Your task to perform on an android device: Open calendar and show me the fourth week of next month Image 0: 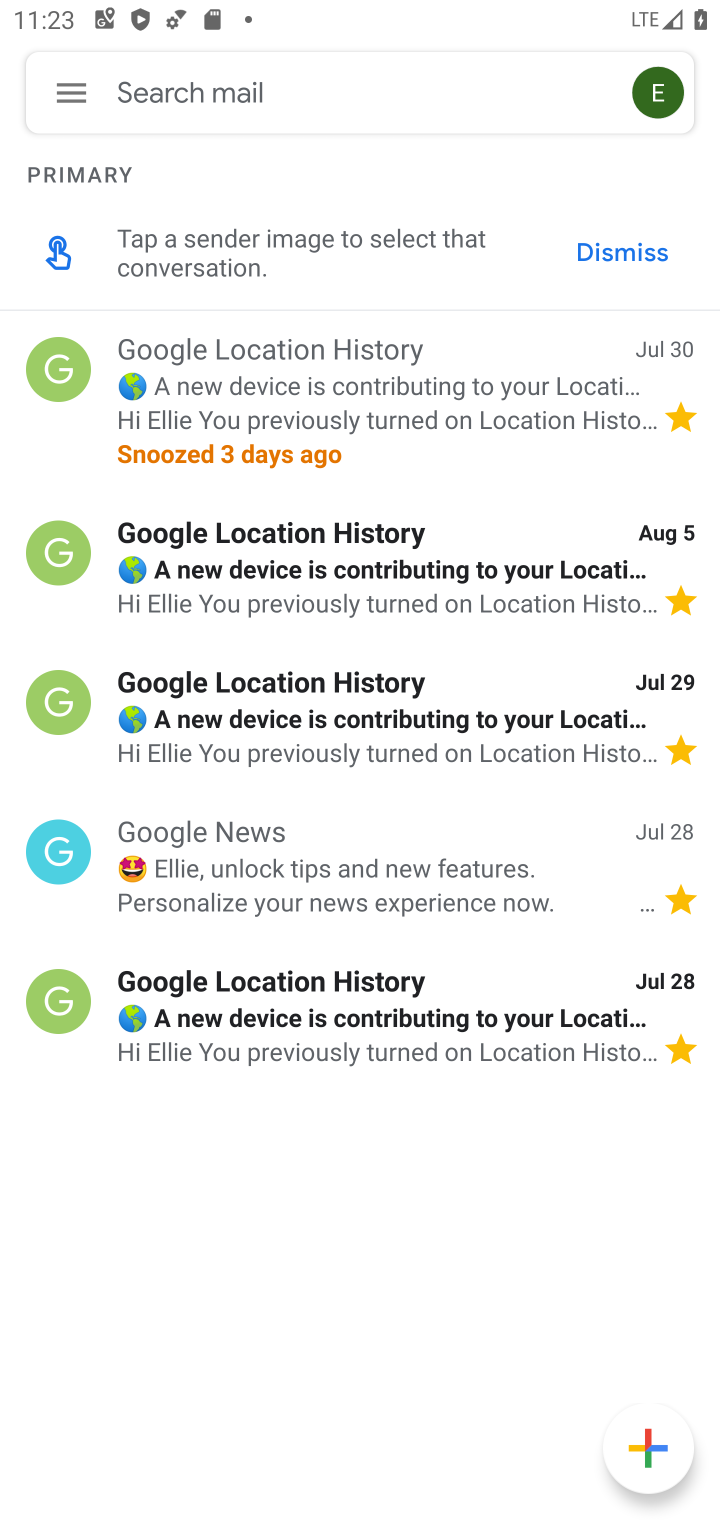
Step 0: press back button
Your task to perform on an android device: Open calendar and show me the fourth week of next month Image 1: 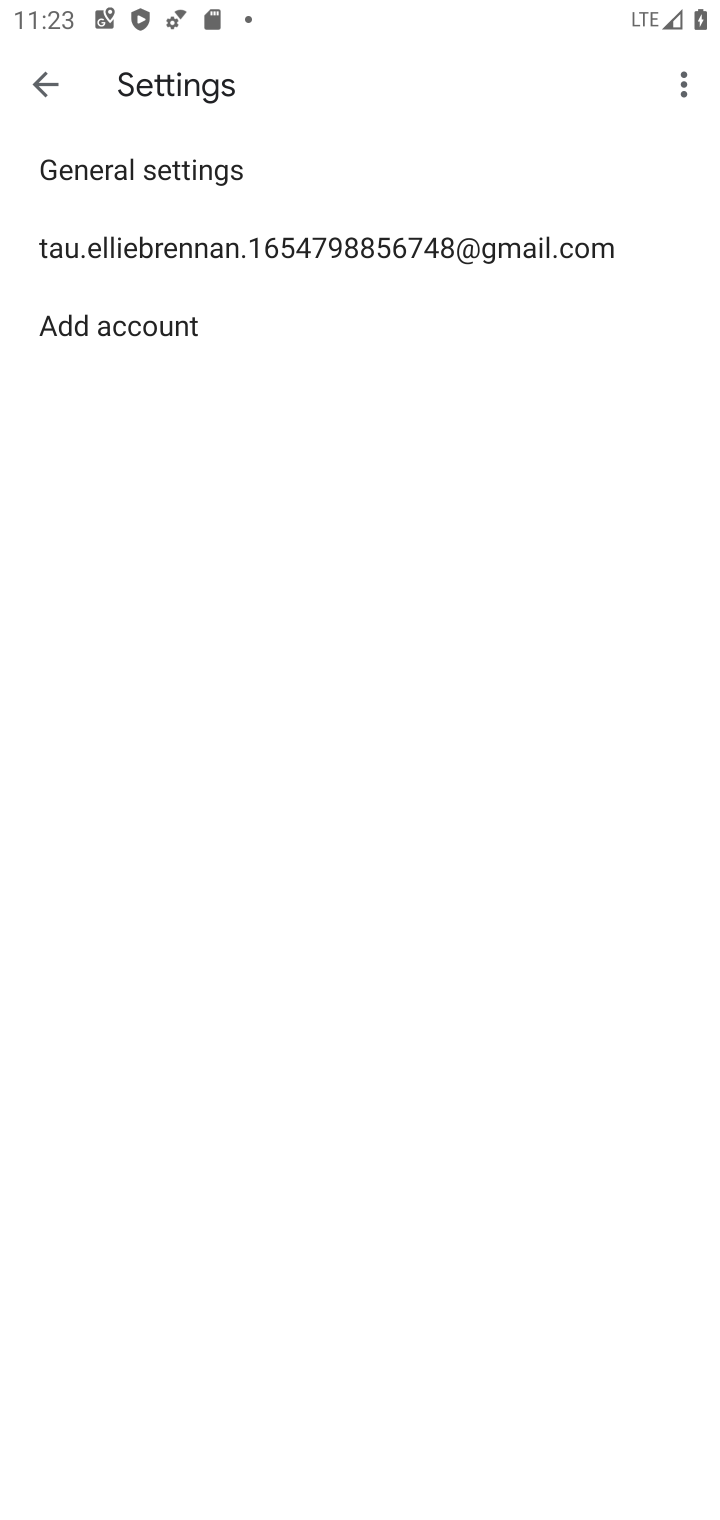
Step 1: press back button
Your task to perform on an android device: Open calendar and show me the fourth week of next month Image 2: 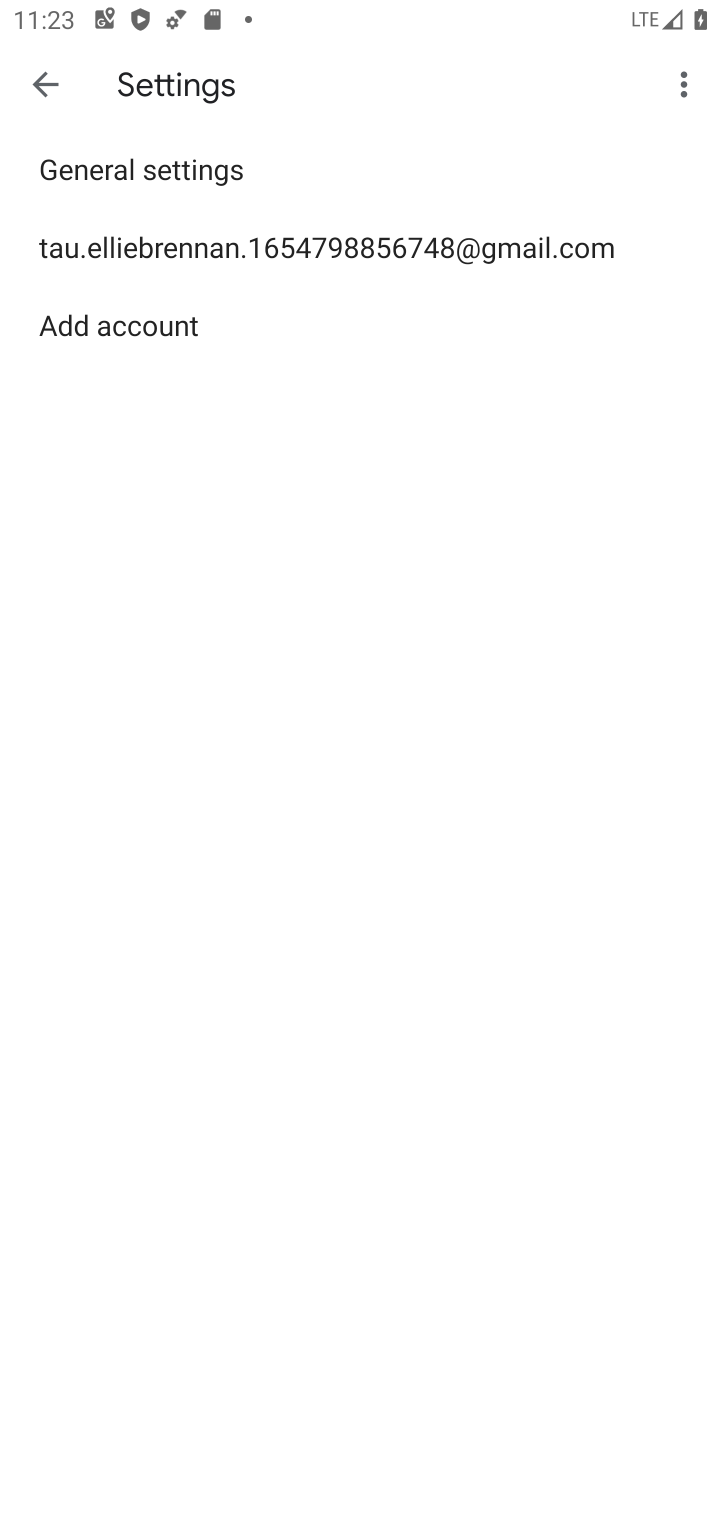
Step 2: press back button
Your task to perform on an android device: Open calendar and show me the fourth week of next month Image 3: 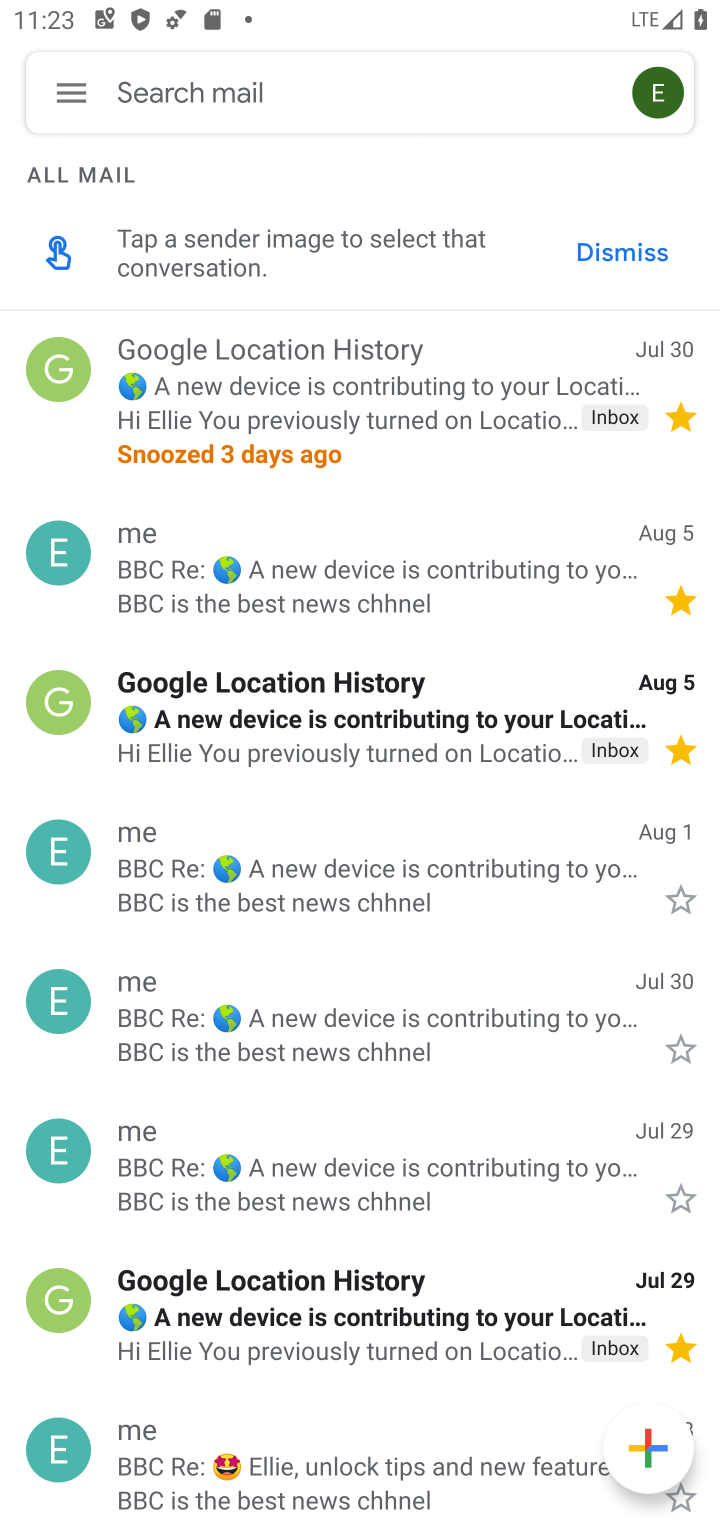
Step 3: press back button
Your task to perform on an android device: Open calendar and show me the fourth week of next month Image 4: 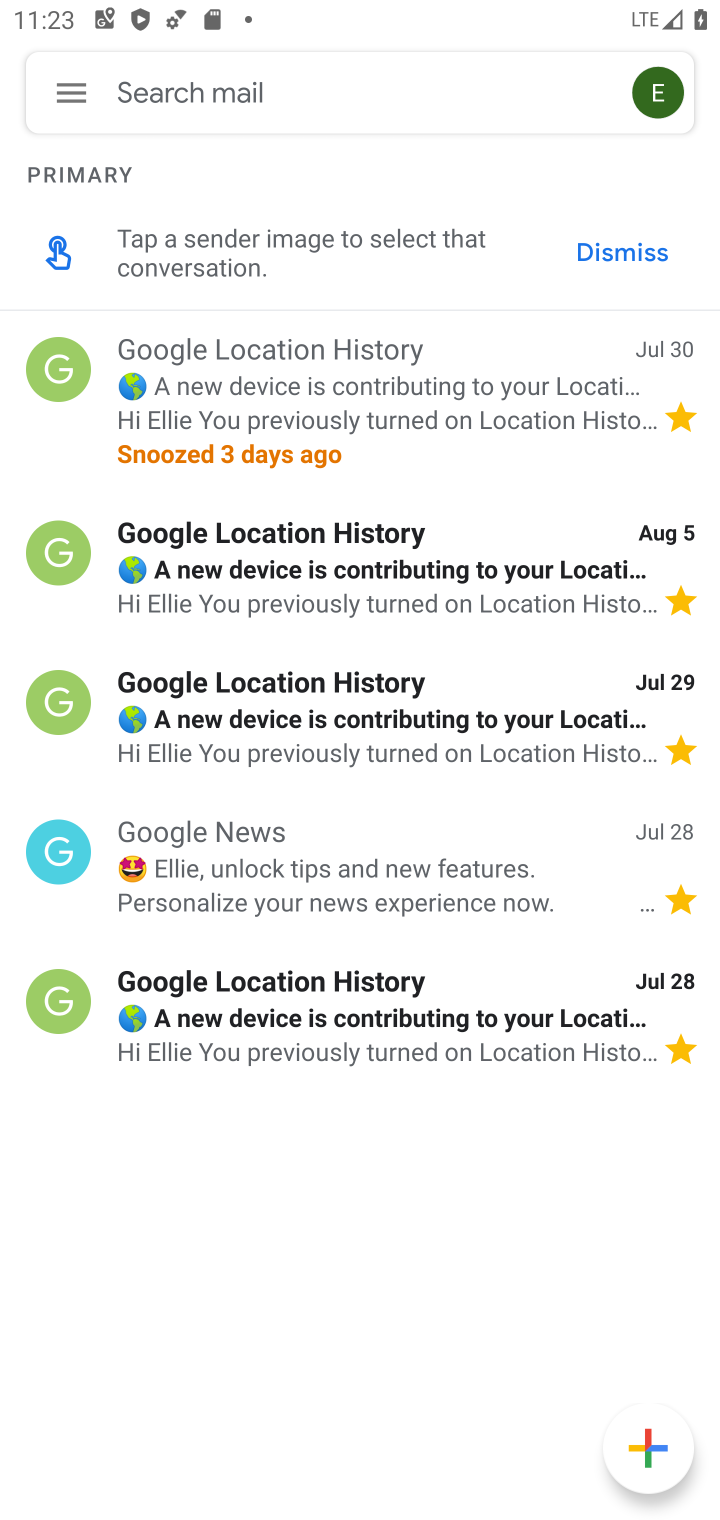
Step 4: press back button
Your task to perform on an android device: Open calendar and show me the fourth week of next month Image 5: 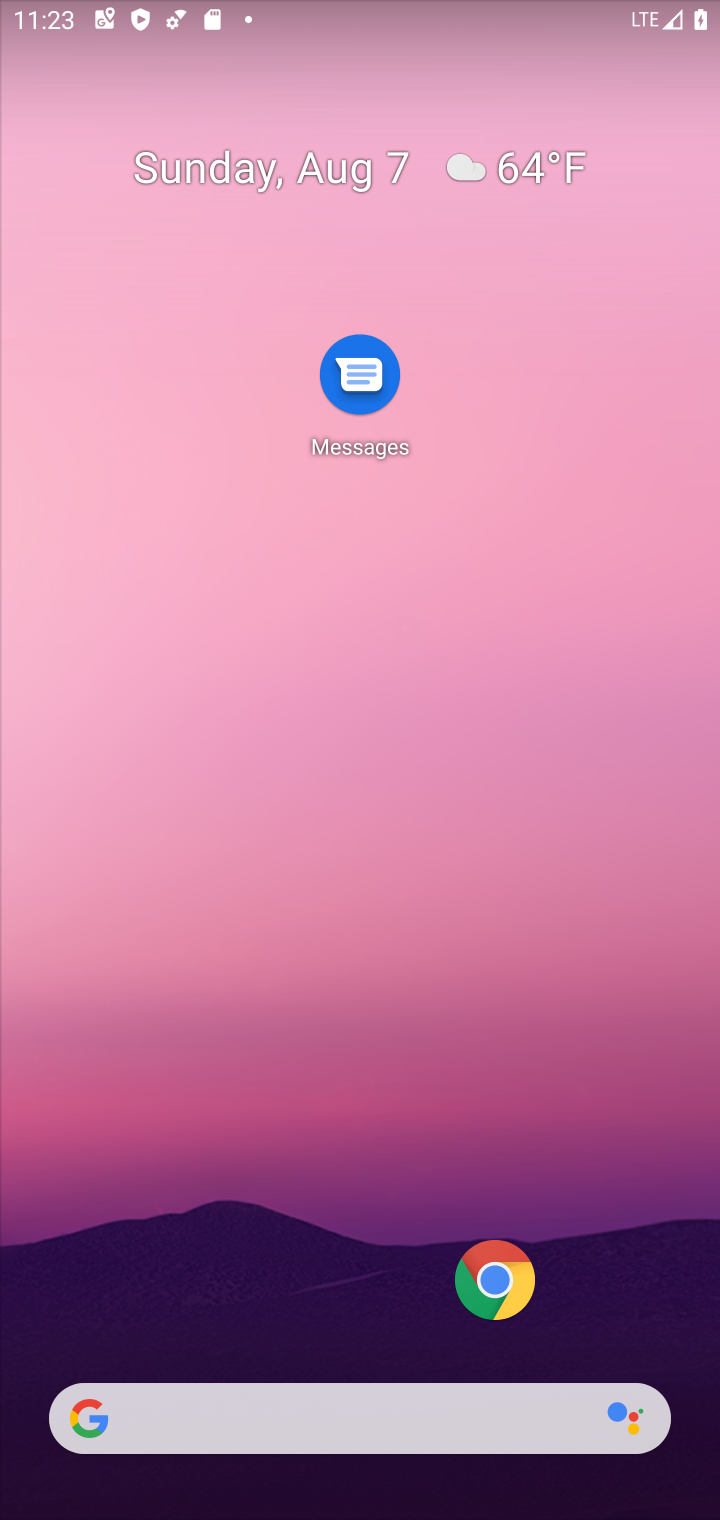
Step 5: drag from (343, 984) to (573, 114)
Your task to perform on an android device: Open calendar and show me the fourth week of next month Image 6: 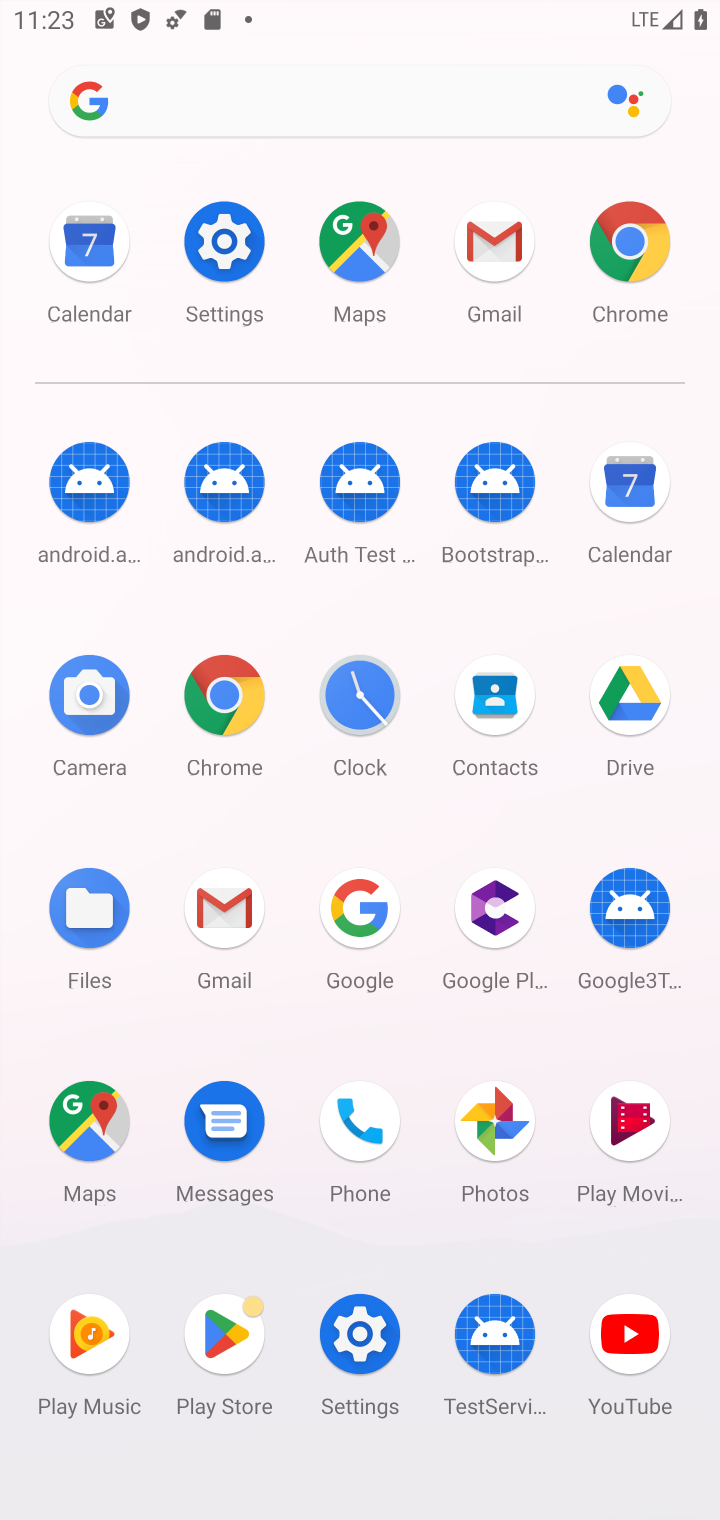
Step 6: click (625, 505)
Your task to perform on an android device: Open calendar and show me the fourth week of next month Image 7: 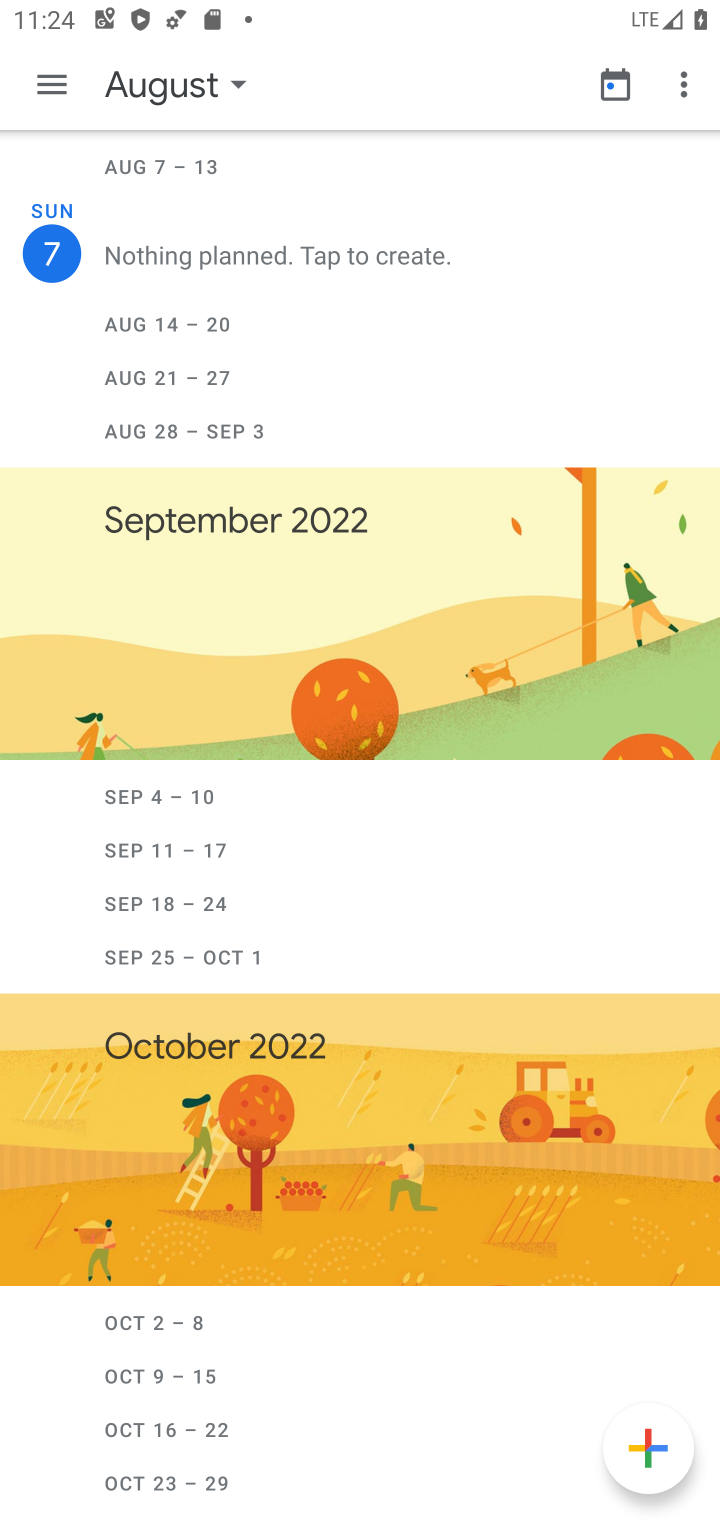
Step 7: click (207, 89)
Your task to perform on an android device: Open calendar and show me the fourth week of next month Image 8: 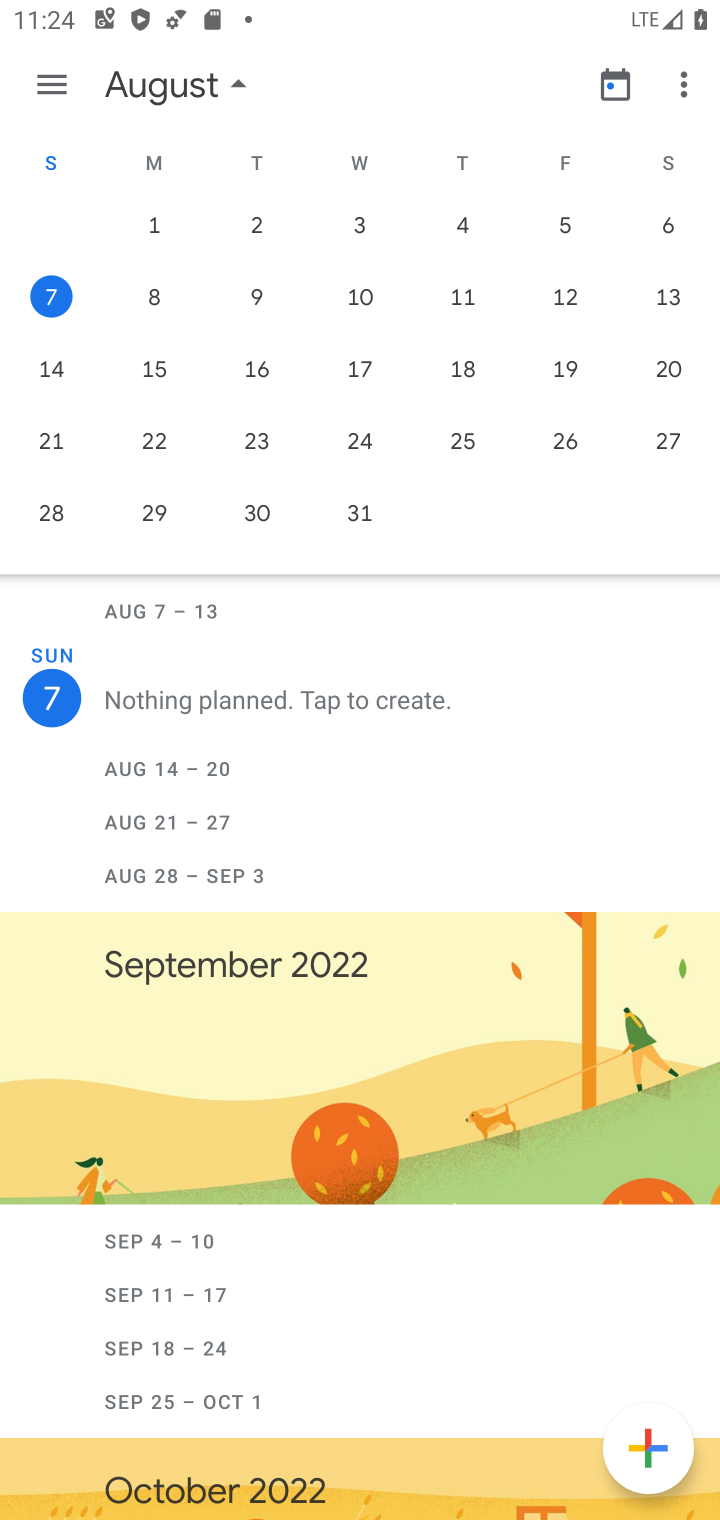
Step 8: drag from (661, 364) to (7, 357)
Your task to perform on an android device: Open calendar and show me the fourth week of next month Image 9: 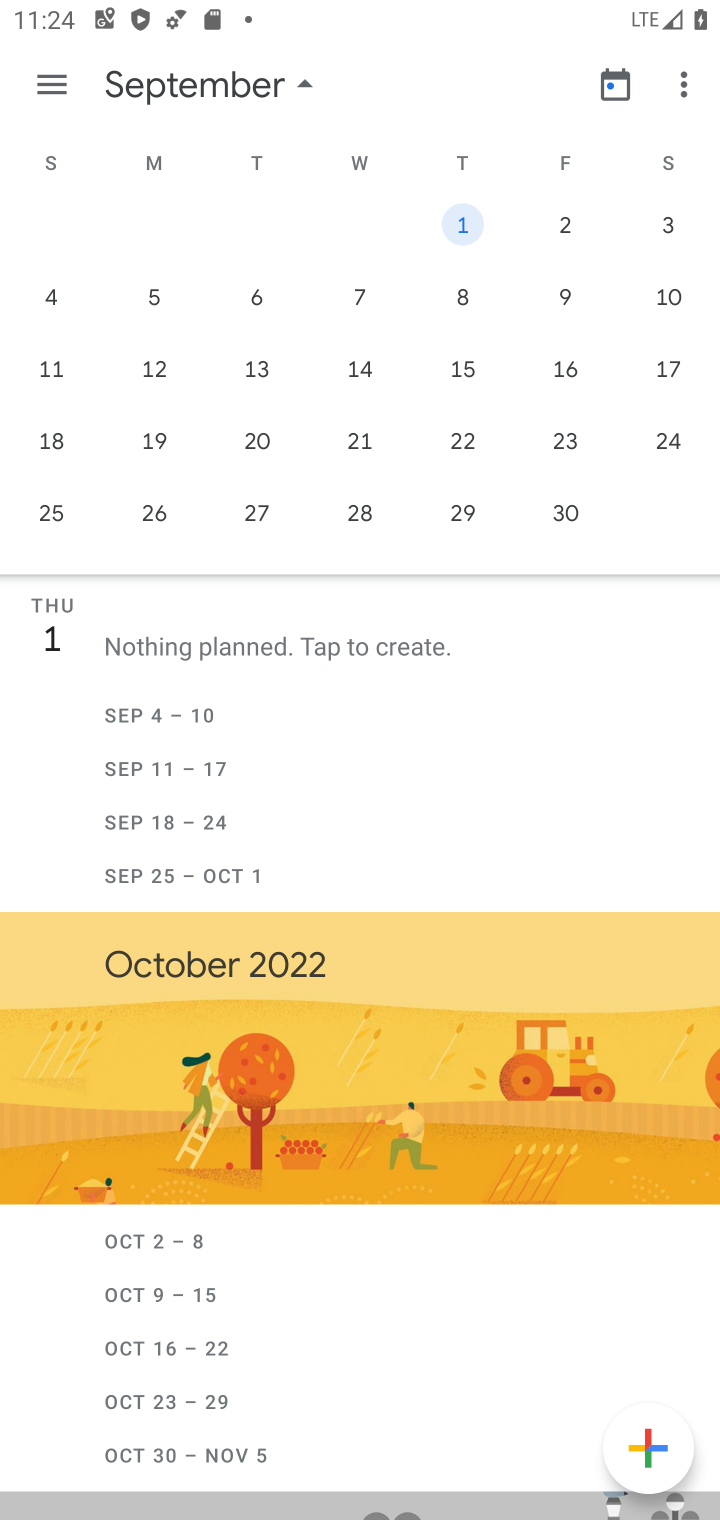
Step 9: click (165, 441)
Your task to perform on an android device: Open calendar and show me the fourth week of next month Image 10: 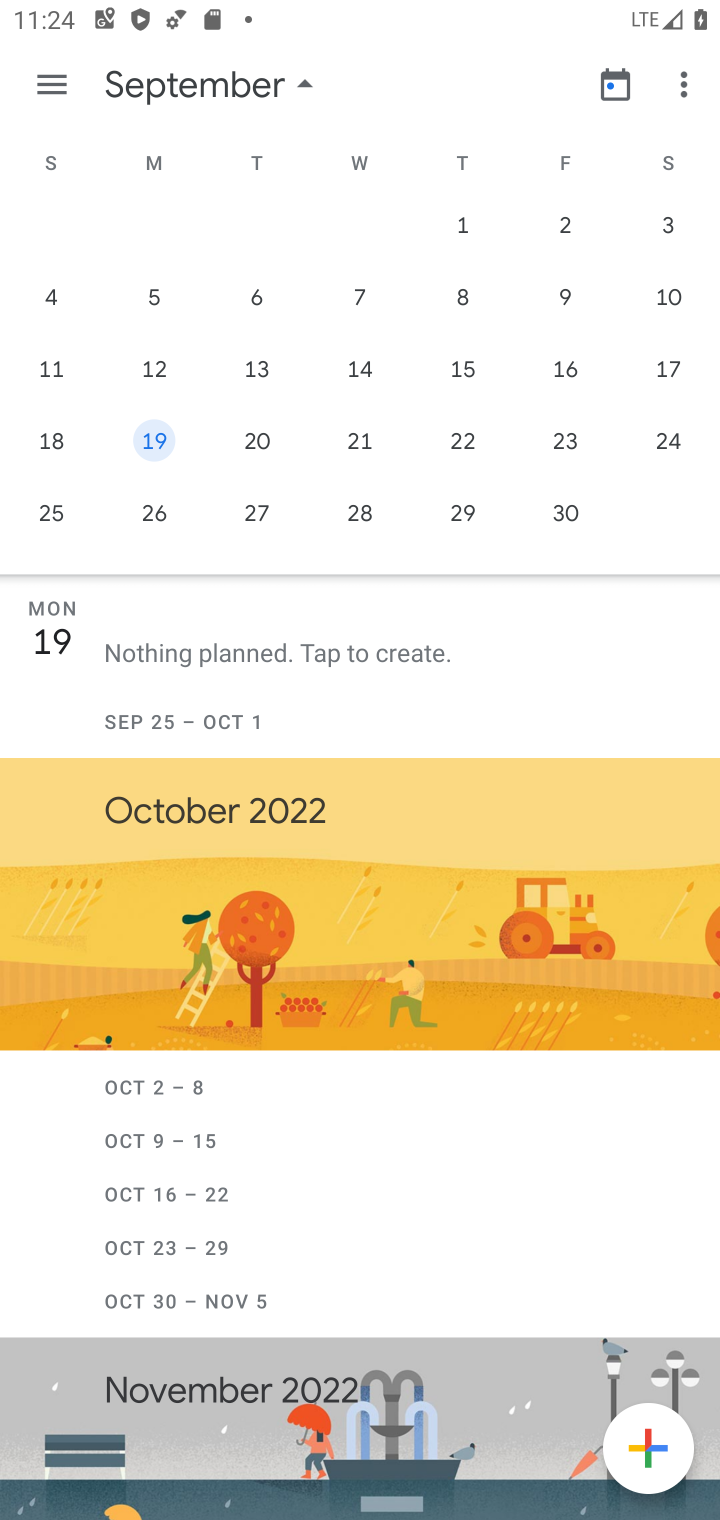
Step 10: task complete